Your task to perform on an android device: Open Youtube and go to the subscriptions tab Image 0: 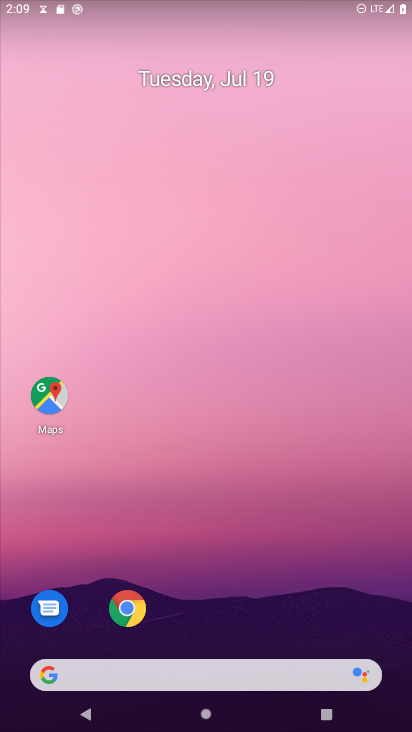
Step 0: drag from (207, 670) to (207, 66)
Your task to perform on an android device: Open Youtube and go to the subscriptions tab Image 1: 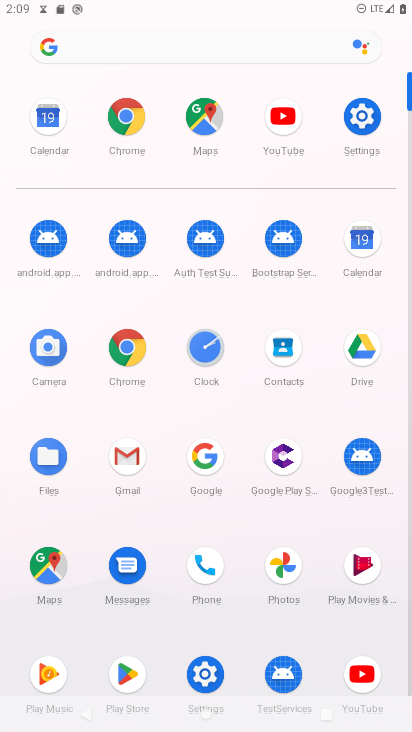
Step 1: click (365, 674)
Your task to perform on an android device: Open Youtube and go to the subscriptions tab Image 2: 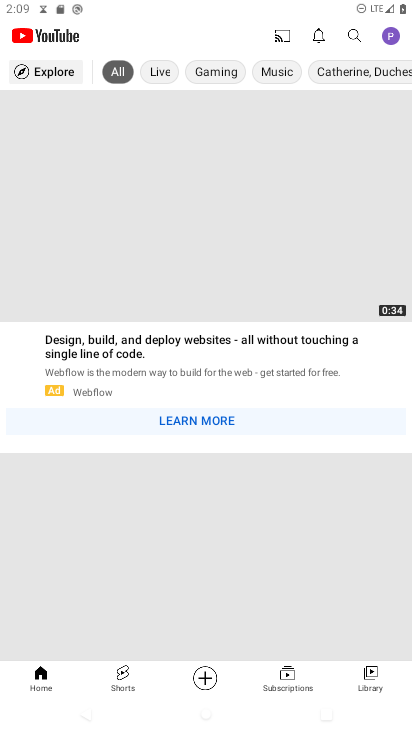
Step 2: click (287, 674)
Your task to perform on an android device: Open Youtube and go to the subscriptions tab Image 3: 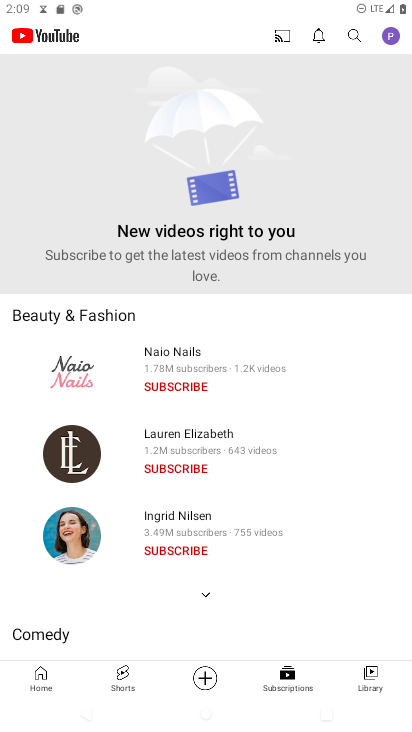
Step 3: task complete